Your task to perform on an android device: Open maps Image 0: 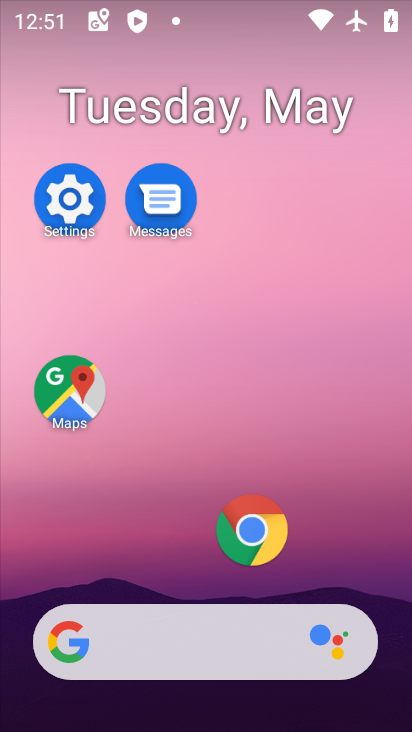
Step 0: click (194, 548)
Your task to perform on an android device: Open maps Image 1: 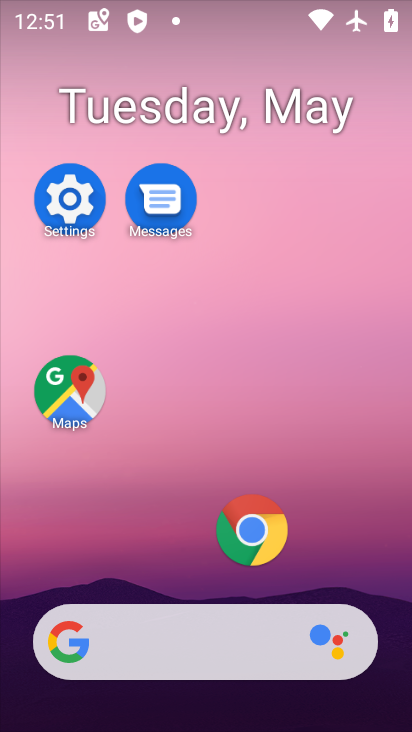
Step 1: drag from (165, 588) to (276, 0)
Your task to perform on an android device: Open maps Image 2: 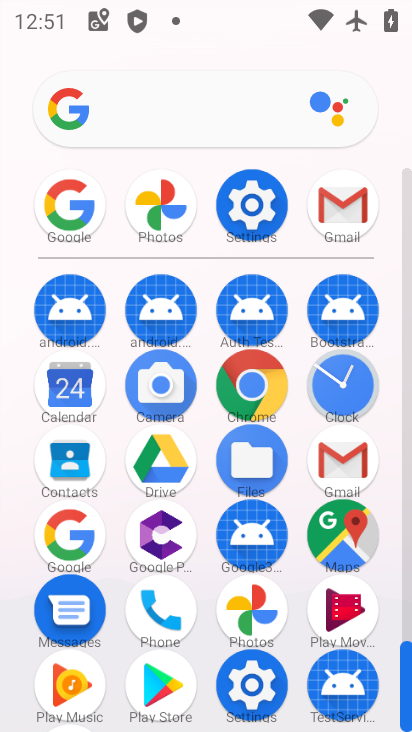
Step 2: click (348, 541)
Your task to perform on an android device: Open maps Image 3: 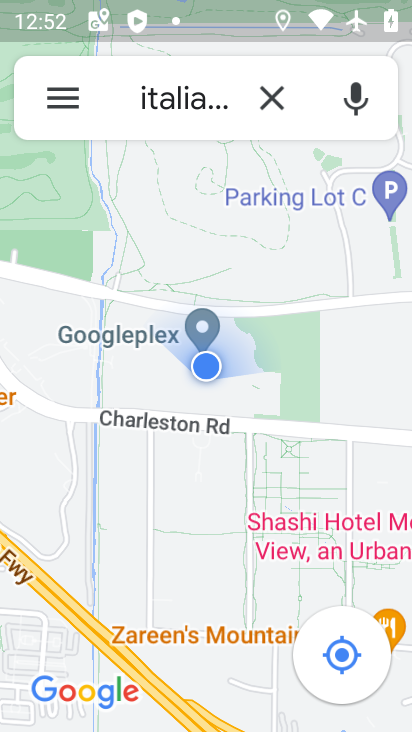
Step 3: task complete